Your task to perform on an android device: delete location history Image 0: 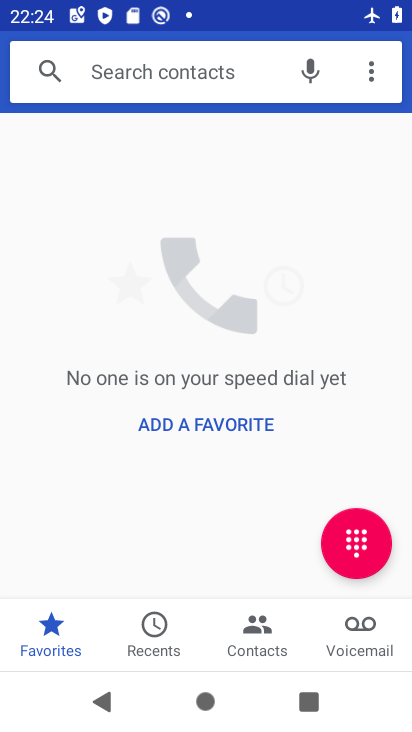
Step 0: press home button
Your task to perform on an android device: delete location history Image 1: 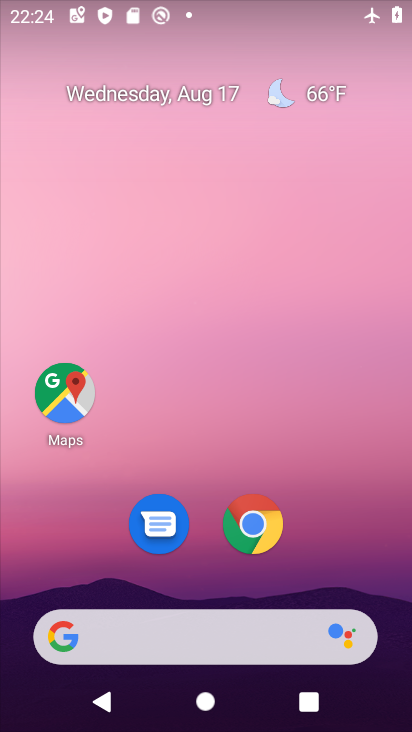
Step 1: click (64, 391)
Your task to perform on an android device: delete location history Image 2: 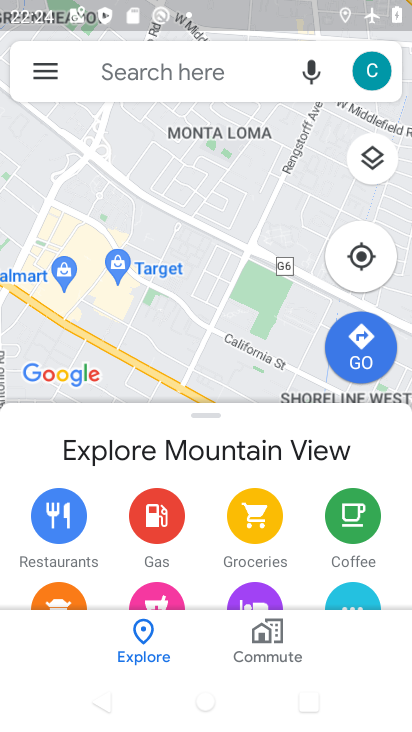
Step 2: click (55, 74)
Your task to perform on an android device: delete location history Image 3: 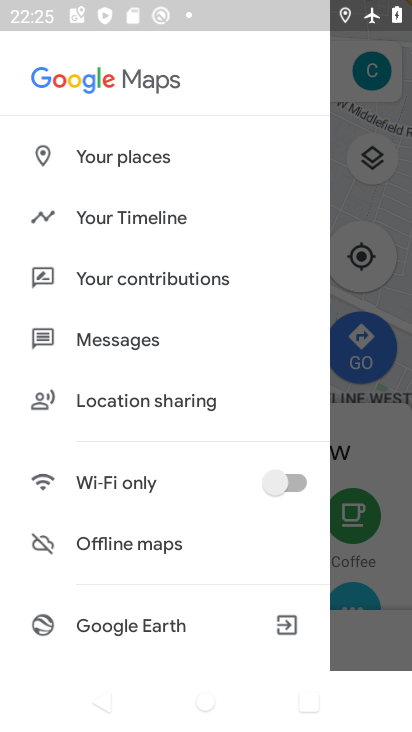
Step 3: click (138, 207)
Your task to perform on an android device: delete location history Image 4: 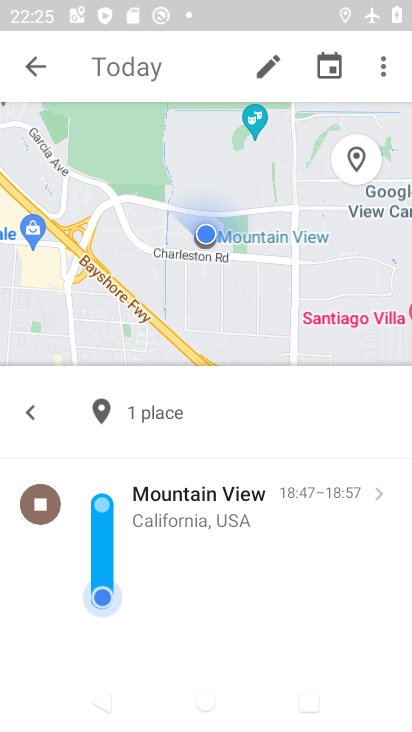
Step 4: click (381, 75)
Your task to perform on an android device: delete location history Image 5: 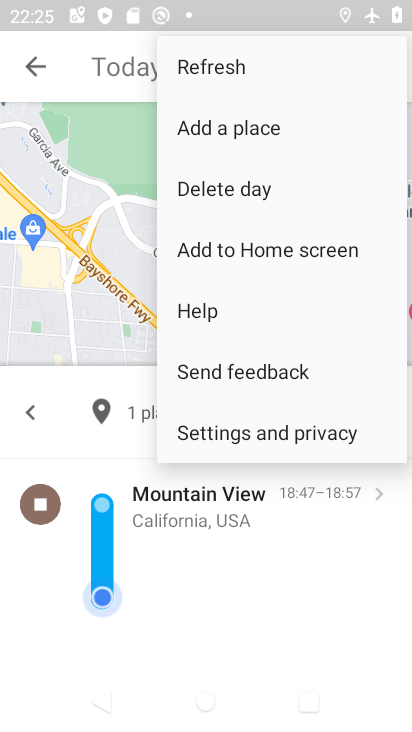
Step 5: click (336, 429)
Your task to perform on an android device: delete location history Image 6: 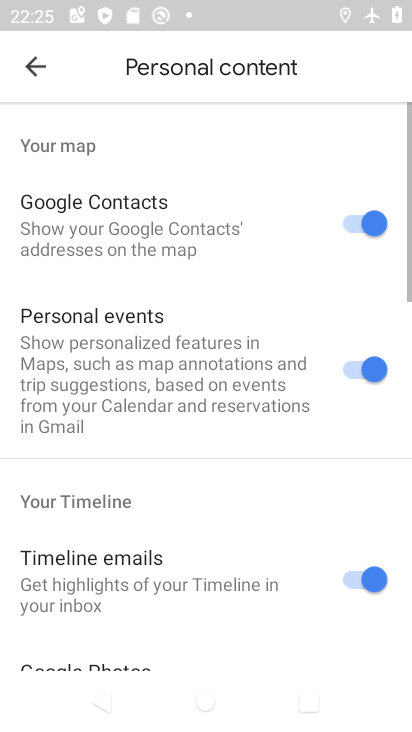
Step 6: drag from (253, 533) to (299, 58)
Your task to perform on an android device: delete location history Image 7: 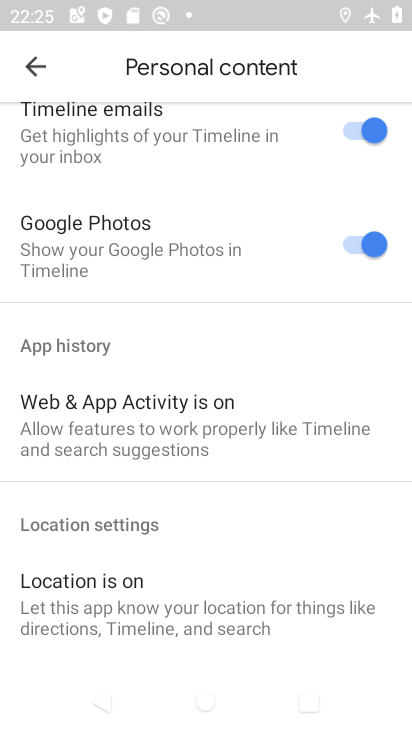
Step 7: drag from (249, 527) to (259, 72)
Your task to perform on an android device: delete location history Image 8: 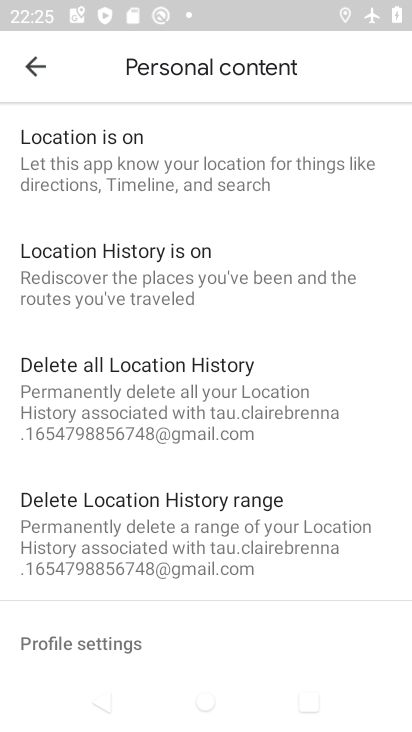
Step 8: click (220, 388)
Your task to perform on an android device: delete location history Image 9: 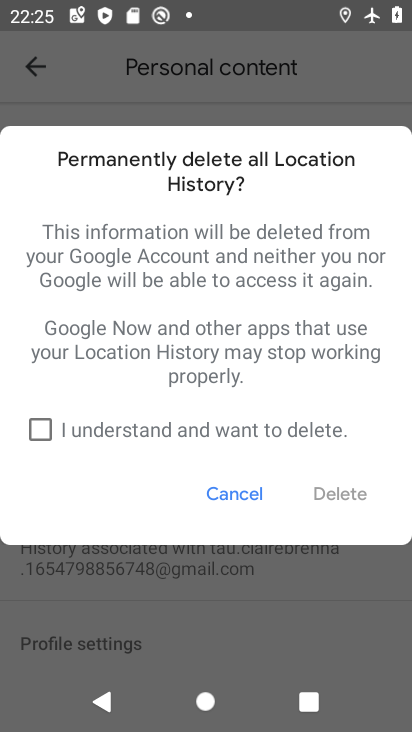
Step 9: click (46, 428)
Your task to perform on an android device: delete location history Image 10: 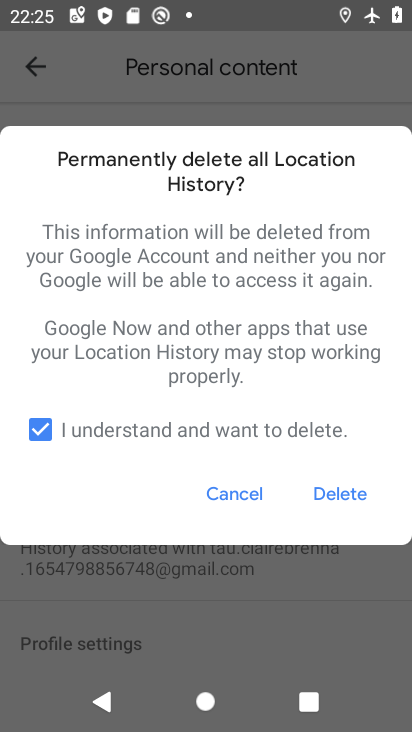
Step 10: click (328, 490)
Your task to perform on an android device: delete location history Image 11: 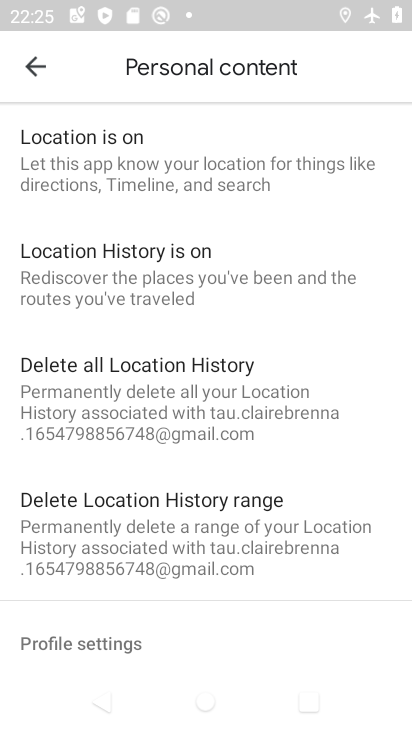
Step 11: task complete